Your task to perform on an android device: What's on my calendar today? Image 0: 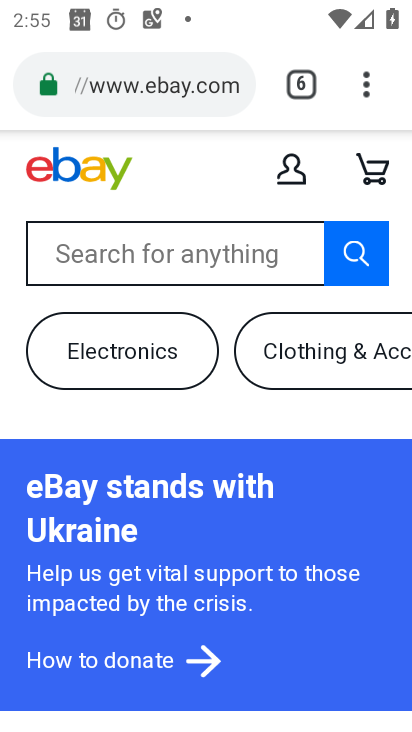
Step 0: press home button
Your task to perform on an android device: What's on my calendar today? Image 1: 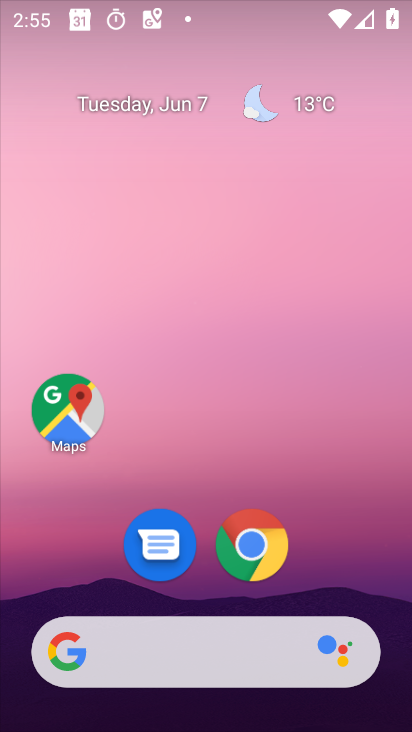
Step 1: drag from (340, 543) to (216, 8)
Your task to perform on an android device: What's on my calendar today? Image 2: 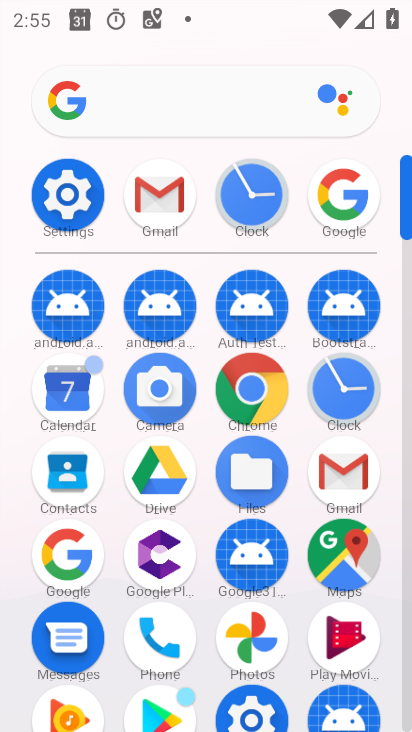
Step 2: drag from (205, 690) to (276, 136)
Your task to perform on an android device: What's on my calendar today? Image 3: 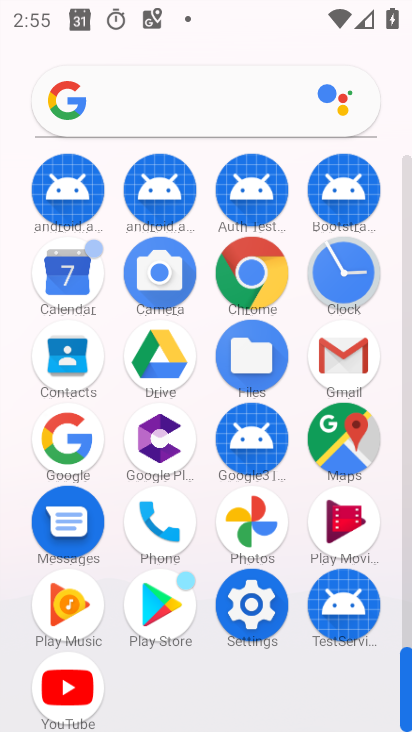
Step 3: click (64, 277)
Your task to perform on an android device: What's on my calendar today? Image 4: 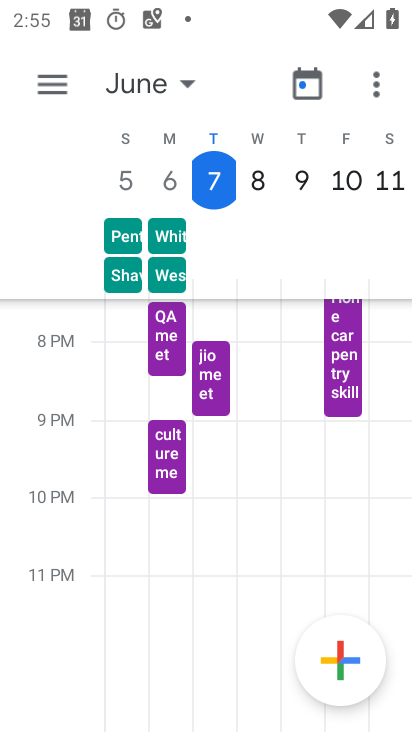
Step 4: task complete